Your task to perform on an android device: turn on sleep mode Image 0: 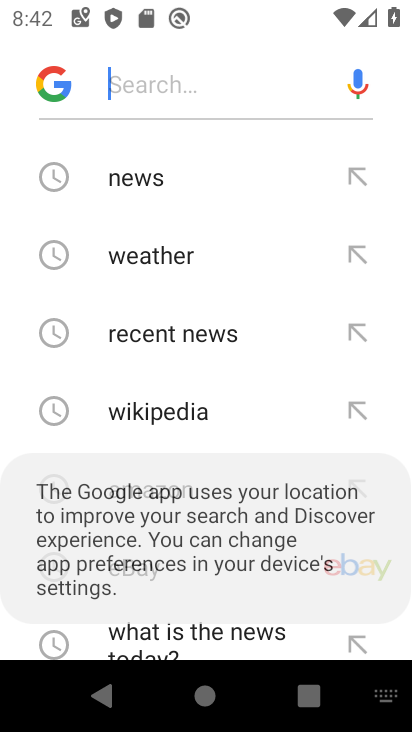
Step 0: press home button
Your task to perform on an android device: turn on sleep mode Image 1: 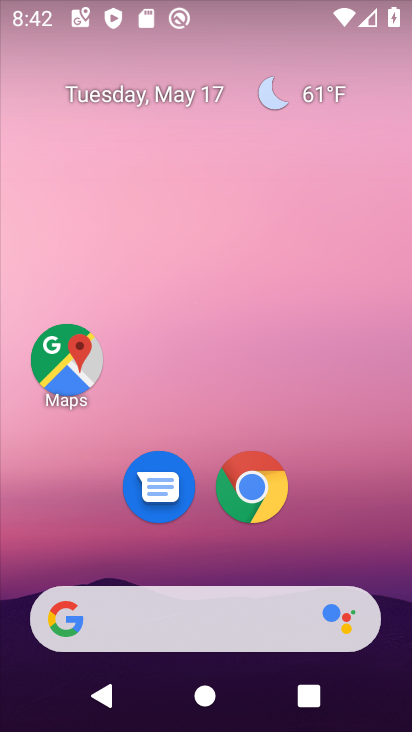
Step 1: drag from (171, 632) to (358, 57)
Your task to perform on an android device: turn on sleep mode Image 2: 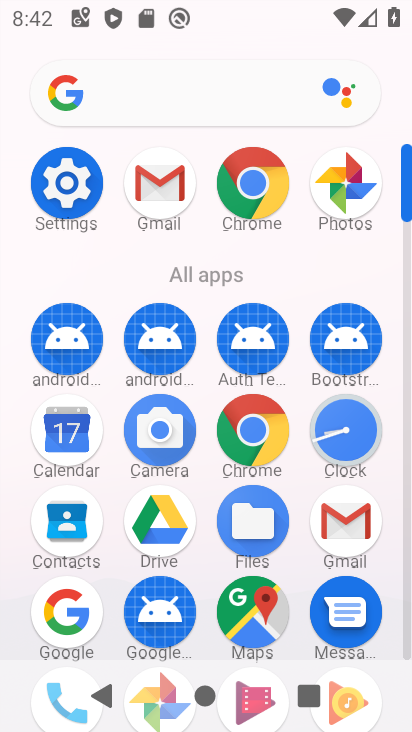
Step 2: click (77, 197)
Your task to perform on an android device: turn on sleep mode Image 3: 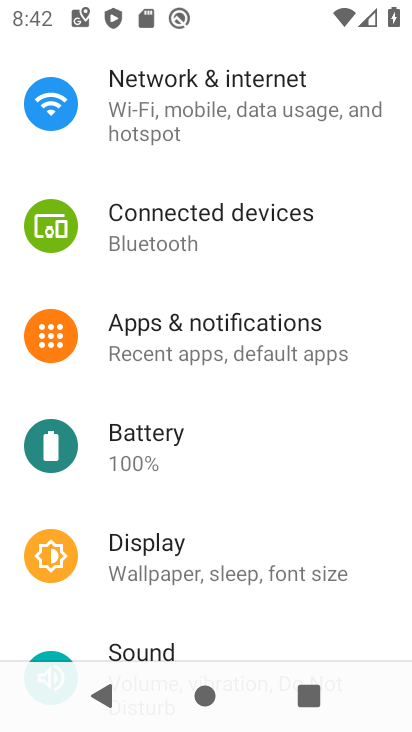
Step 3: click (216, 571)
Your task to perform on an android device: turn on sleep mode Image 4: 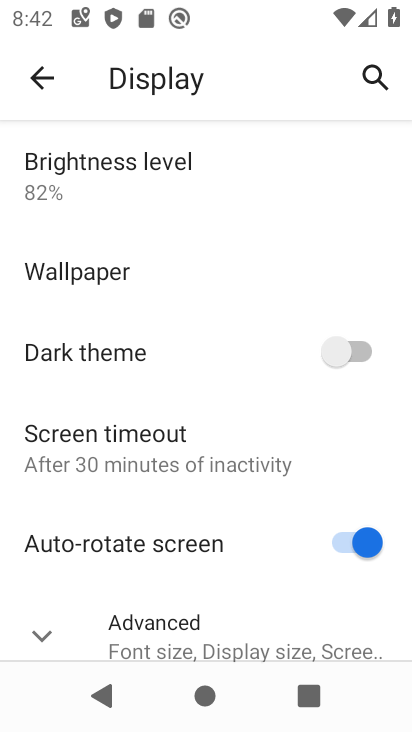
Step 4: task complete